Your task to perform on an android device: Search for sushi restaurants on Maps Image 0: 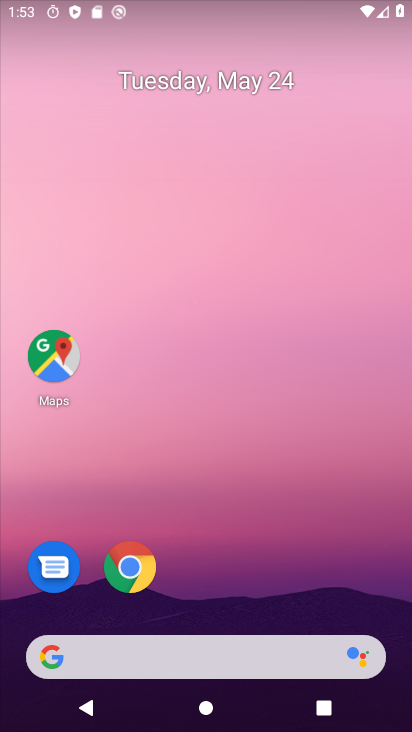
Step 0: click (64, 361)
Your task to perform on an android device: Search for sushi restaurants on Maps Image 1: 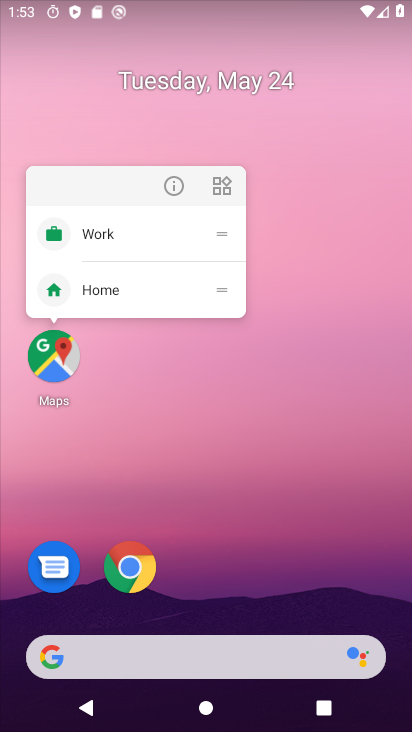
Step 1: click (66, 361)
Your task to perform on an android device: Search for sushi restaurants on Maps Image 2: 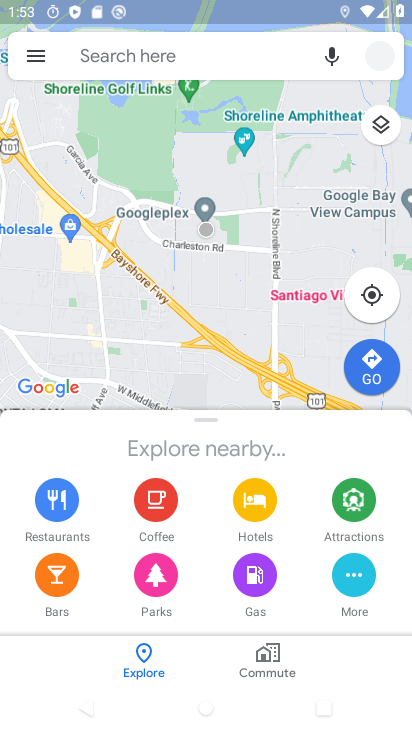
Step 2: click (169, 50)
Your task to perform on an android device: Search for sushi restaurants on Maps Image 3: 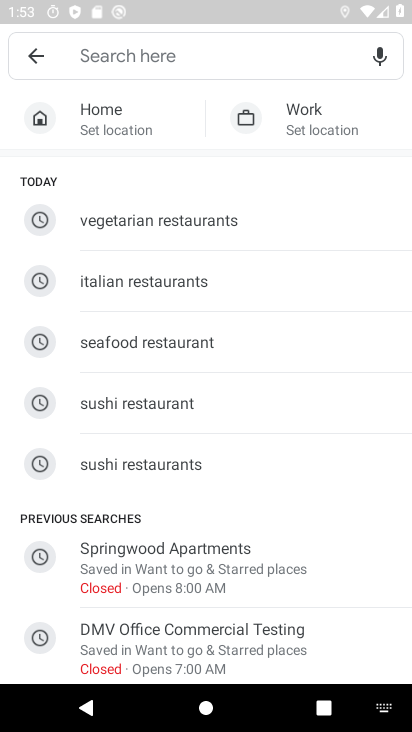
Step 3: type "Sushi restaurants"
Your task to perform on an android device: Search for sushi restaurants on Maps Image 4: 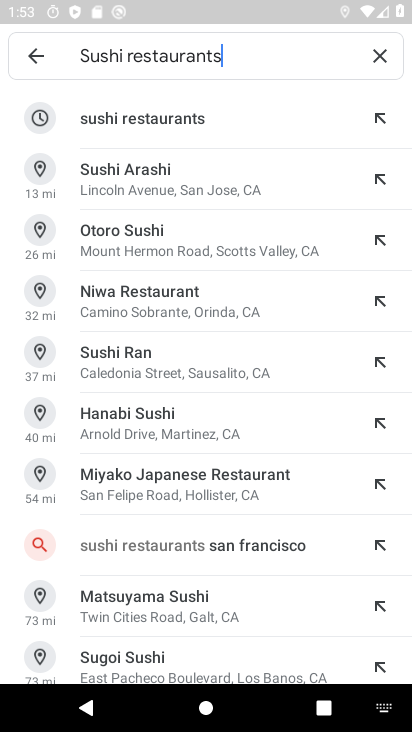
Step 4: click (225, 125)
Your task to perform on an android device: Search for sushi restaurants on Maps Image 5: 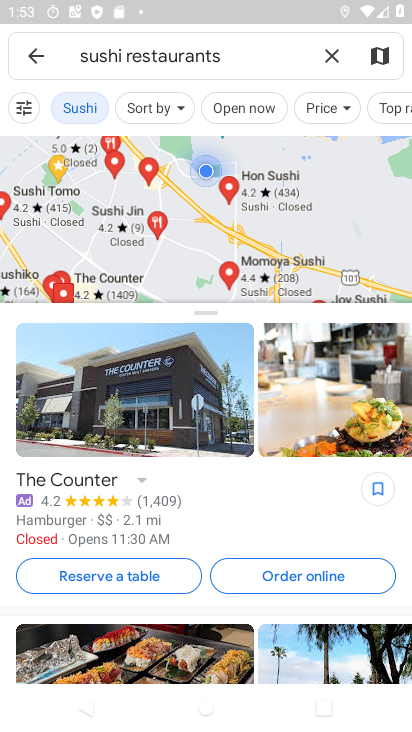
Step 5: task complete